Your task to perform on an android device: Open the Play Movies app and select the watchlist tab. Image 0: 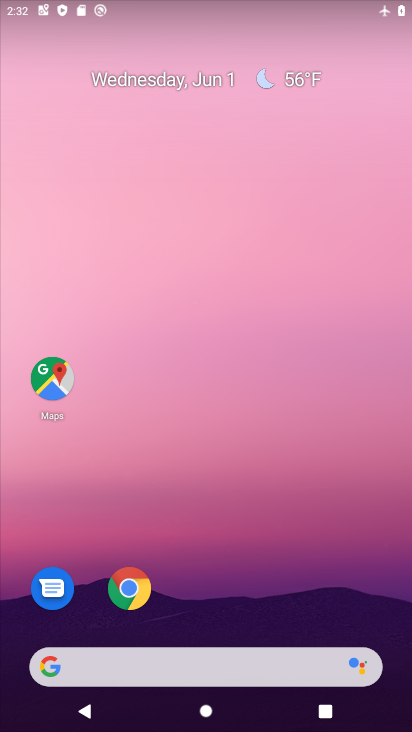
Step 0: drag from (239, 599) to (157, 5)
Your task to perform on an android device: Open the Play Movies app and select the watchlist tab. Image 1: 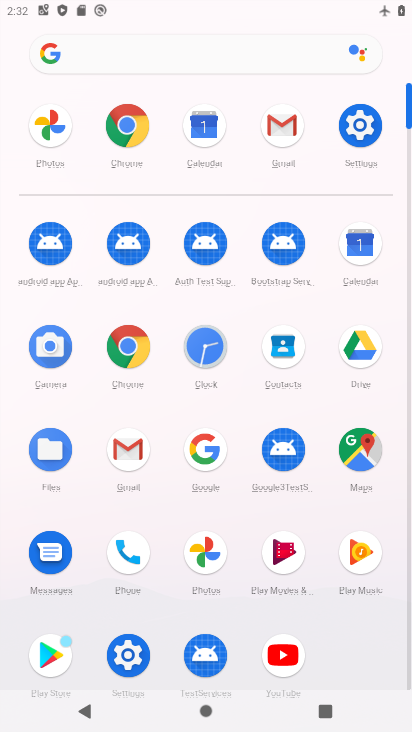
Step 1: click (283, 552)
Your task to perform on an android device: Open the Play Movies app and select the watchlist tab. Image 2: 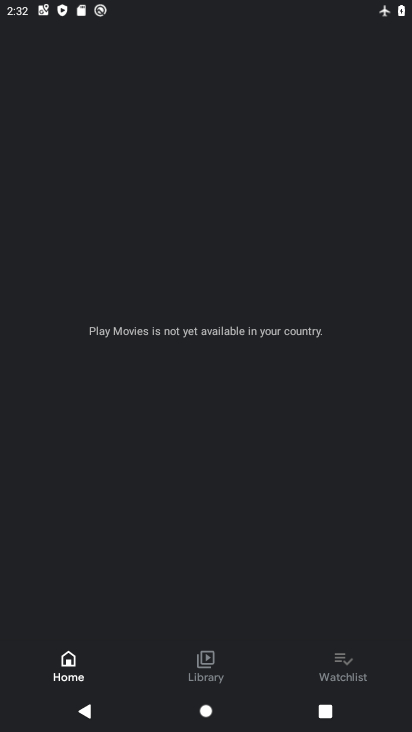
Step 2: click (356, 663)
Your task to perform on an android device: Open the Play Movies app and select the watchlist tab. Image 3: 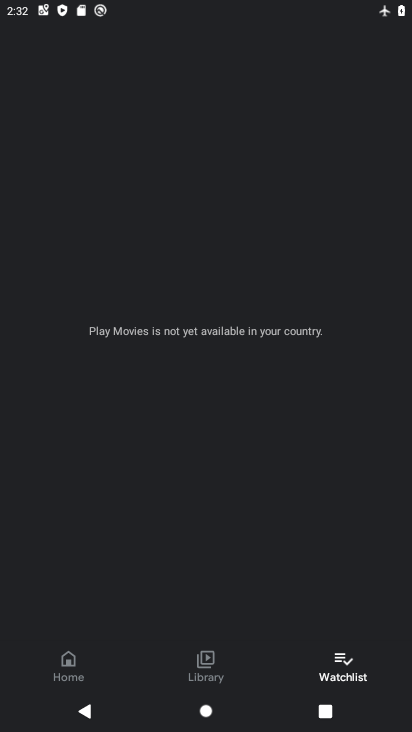
Step 3: task complete